Your task to perform on an android device: Open the phone app and click the voicemail tab. Image 0: 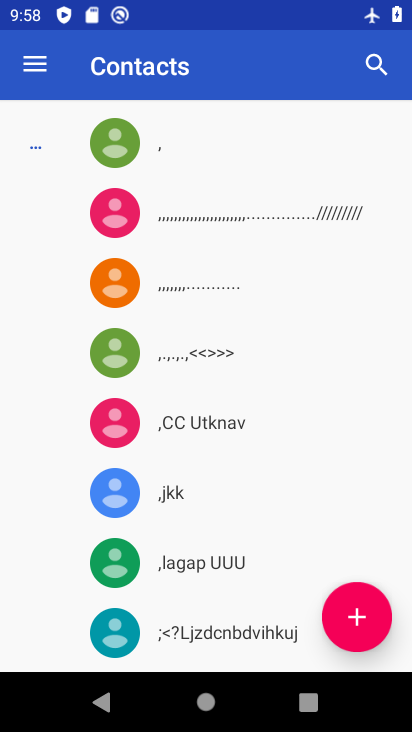
Step 0: press home button
Your task to perform on an android device: Open the phone app and click the voicemail tab. Image 1: 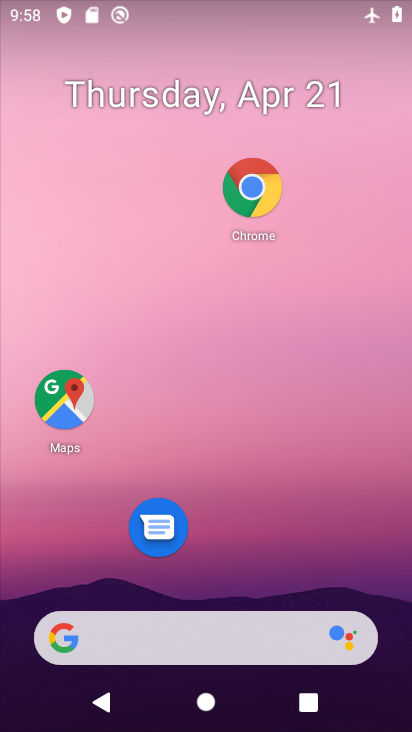
Step 1: drag from (278, 549) to (401, 179)
Your task to perform on an android device: Open the phone app and click the voicemail tab. Image 2: 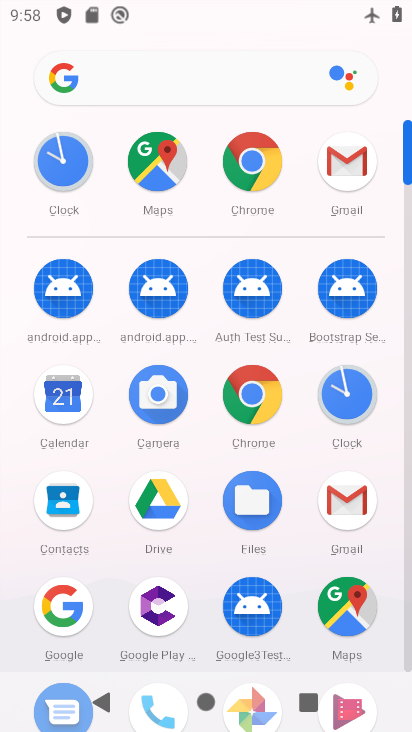
Step 2: drag from (306, 529) to (325, 166)
Your task to perform on an android device: Open the phone app and click the voicemail tab. Image 3: 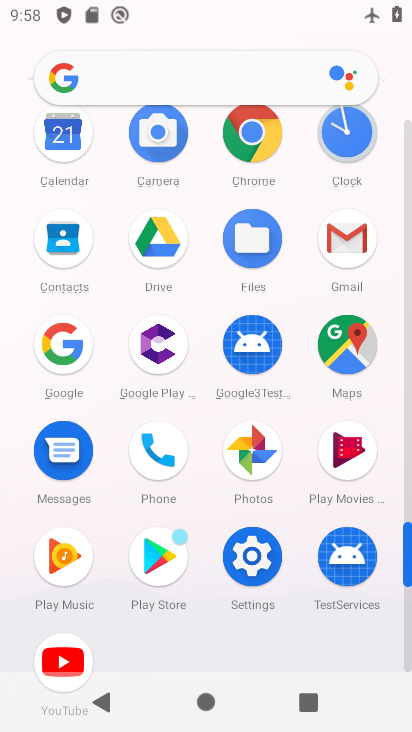
Step 3: click (159, 464)
Your task to perform on an android device: Open the phone app and click the voicemail tab. Image 4: 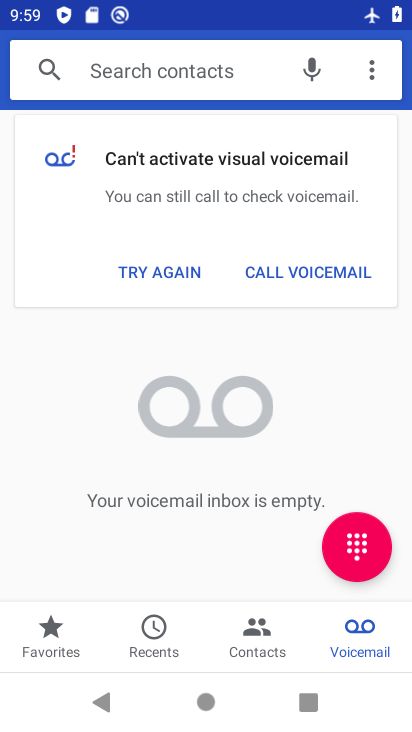
Step 4: task complete